Your task to perform on an android device: Go to privacy settings Image 0: 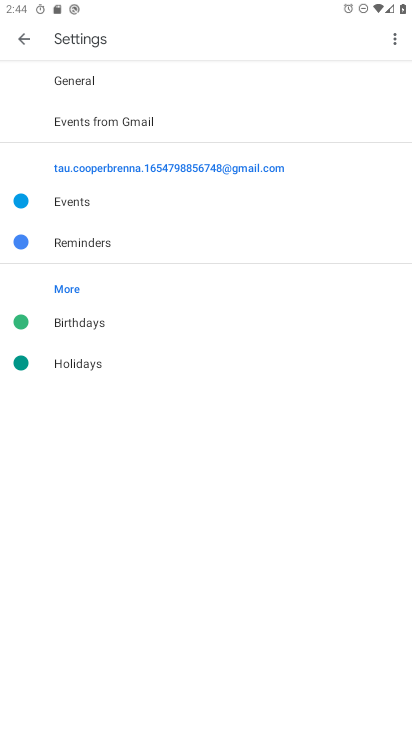
Step 0: press home button
Your task to perform on an android device: Go to privacy settings Image 1: 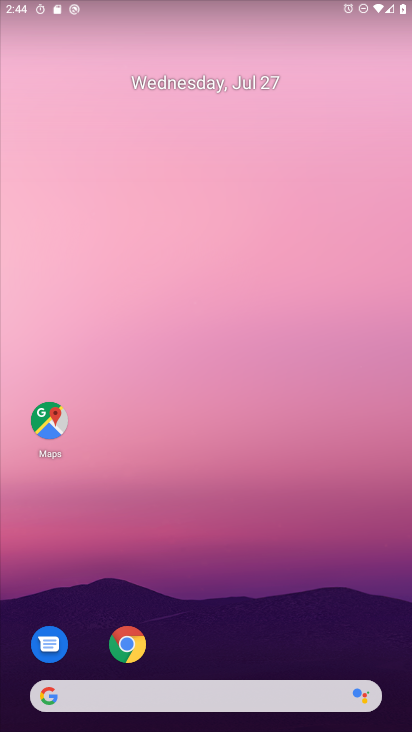
Step 1: drag from (233, 521) to (249, 185)
Your task to perform on an android device: Go to privacy settings Image 2: 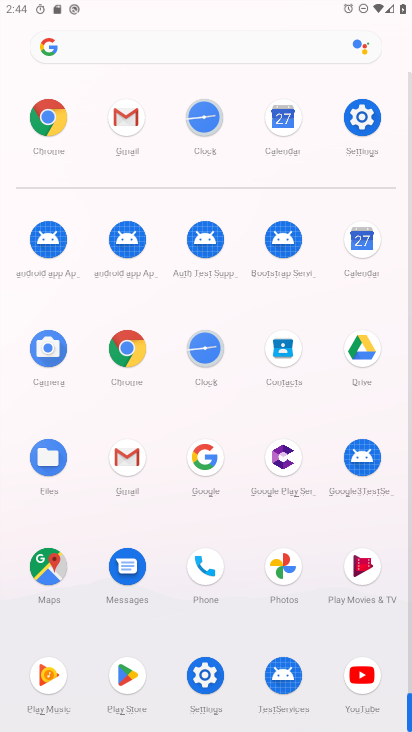
Step 2: click (356, 110)
Your task to perform on an android device: Go to privacy settings Image 3: 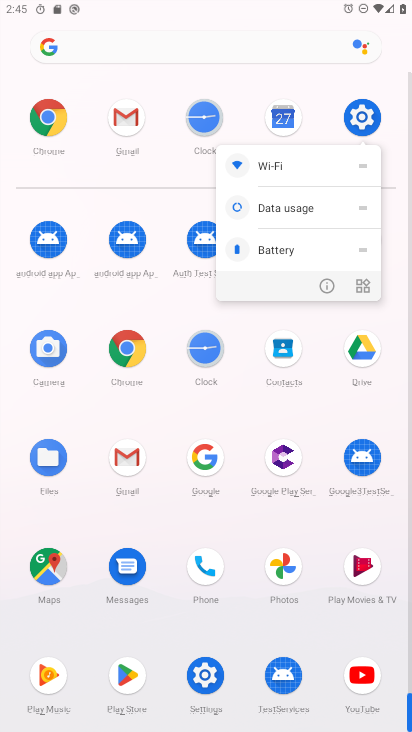
Step 3: click (326, 277)
Your task to perform on an android device: Go to privacy settings Image 4: 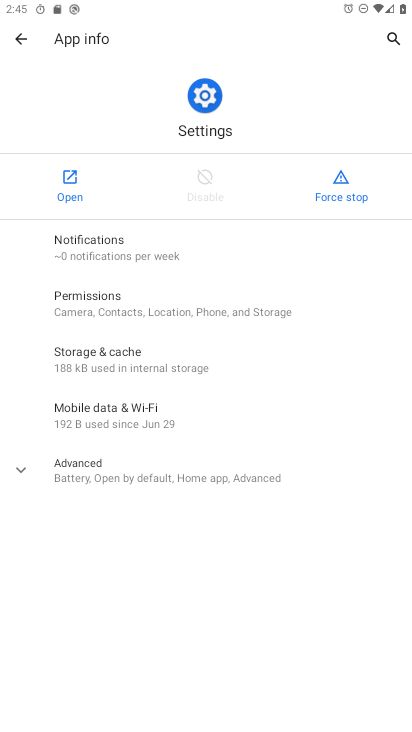
Step 4: drag from (191, 496) to (266, 144)
Your task to perform on an android device: Go to privacy settings Image 5: 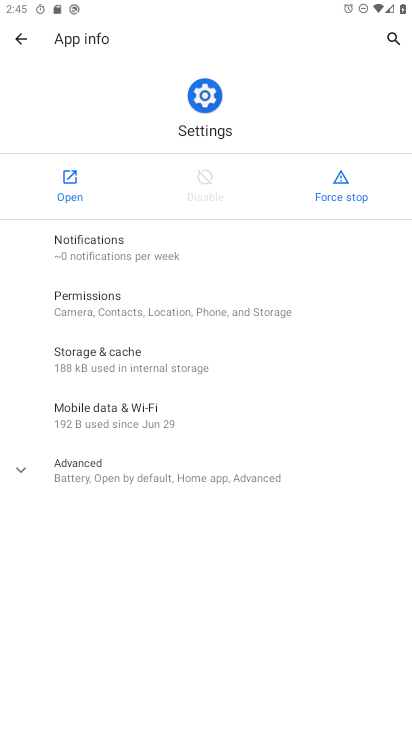
Step 5: click (30, 175)
Your task to perform on an android device: Go to privacy settings Image 6: 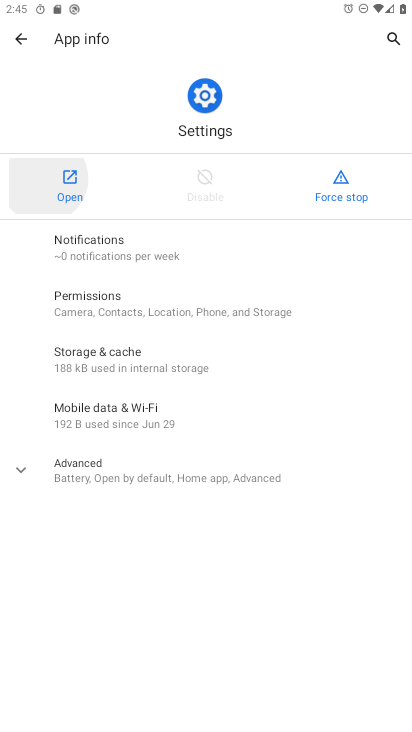
Step 6: click (88, 170)
Your task to perform on an android device: Go to privacy settings Image 7: 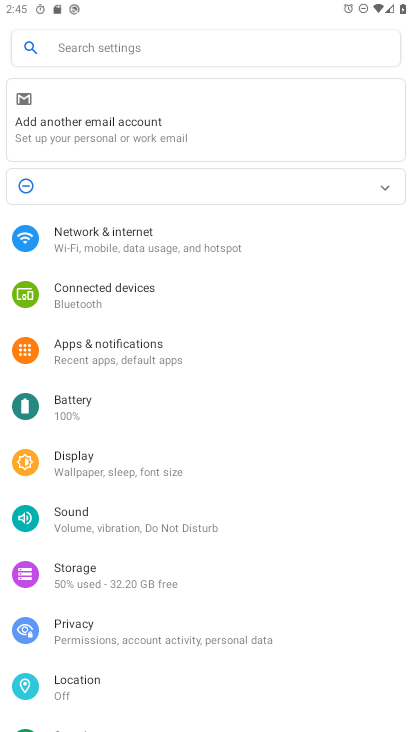
Step 7: click (126, 646)
Your task to perform on an android device: Go to privacy settings Image 8: 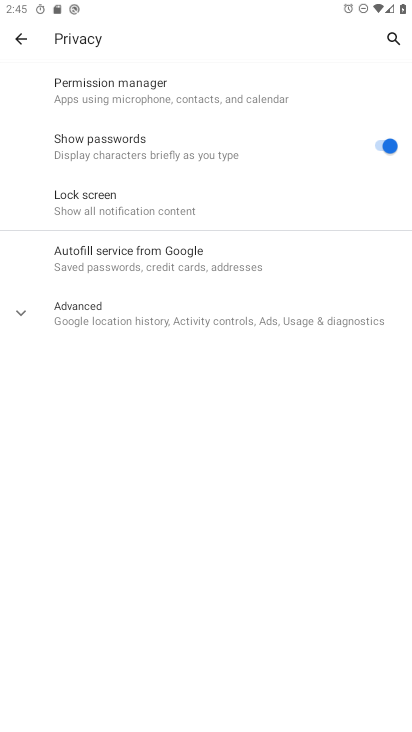
Step 8: task complete